Your task to perform on an android device: What's the weather going to be this weekend? Image 0: 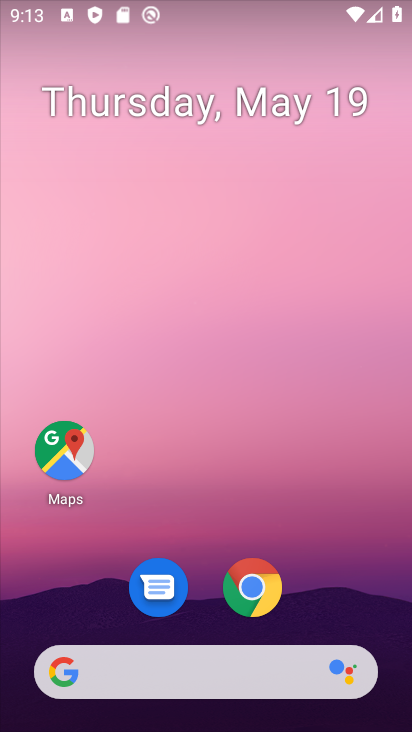
Step 0: drag from (340, 594) to (311, 12)
Your task to perform on an android device: What's the weather going to be this weekend? Image 1: 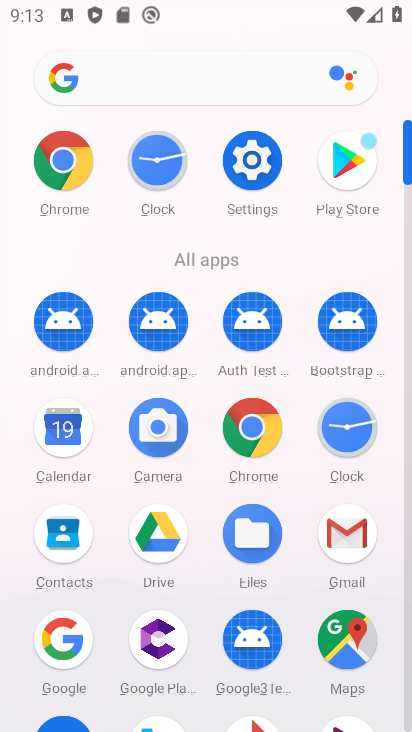
Step 1: press home button
Your task to perform on an android device: What's the weather going to be this weekend? Image 2: 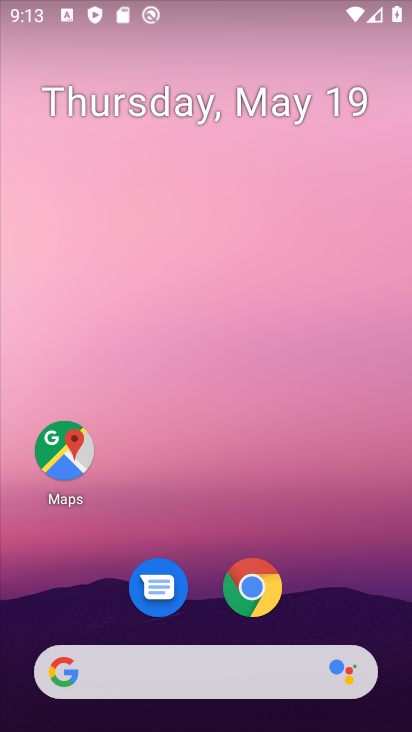
Step 2: click (50, 673)
Your task to perform on an android device: What's the weather going to be this weekend? Image 3: 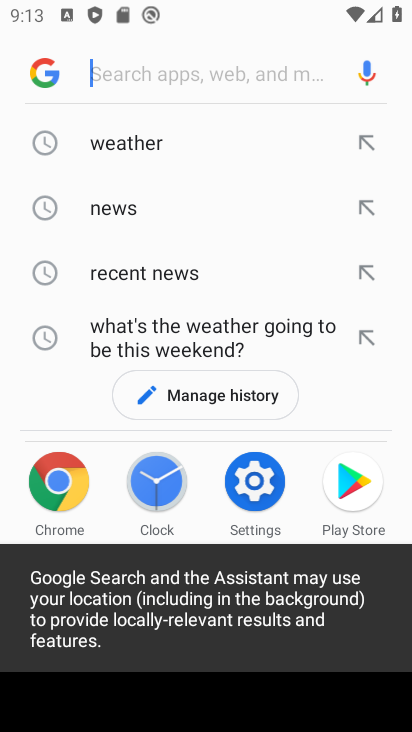
Step 3: click (68, 71)
Your task to perform on an android device: What's the weather going to be this weekend? Image 4: 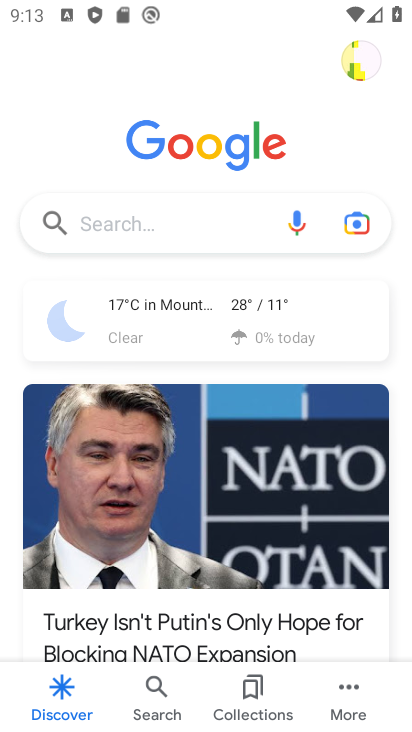
Step 4: drag from (378, 587) to (334, 264)
Your task to perform on an android device: What's the weather going to be this weekend? Image 5: 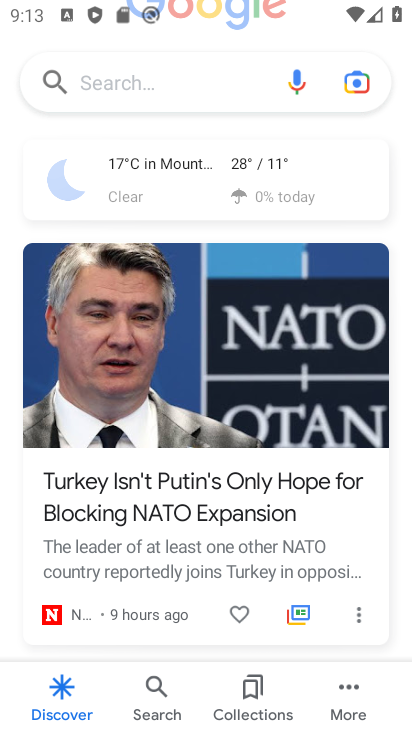
Step 5: click (141, 179)
Your task to perform on an android device: What's the weather going to be this weekend? Image 6: 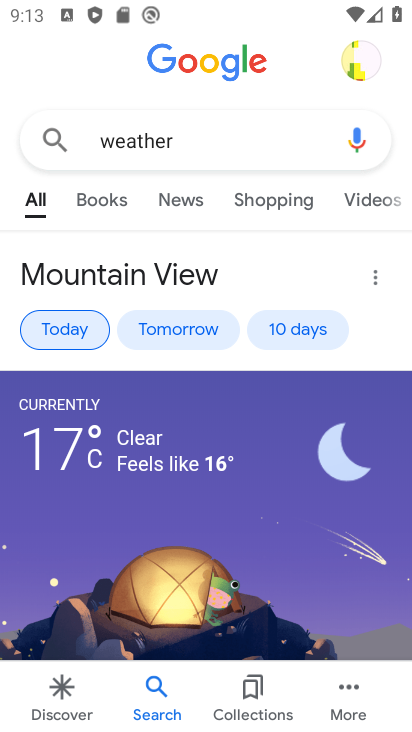
Step 6: task complete